Your task to perform on an android device: Do I have any events today? Image 0: 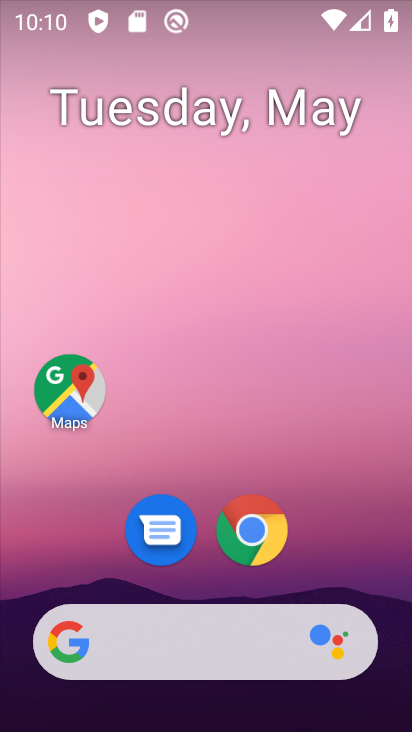
Step 0: drag from (339, 488) to (383, 102)
Your task to perform on an android device: Do I have any events today? Image 1: 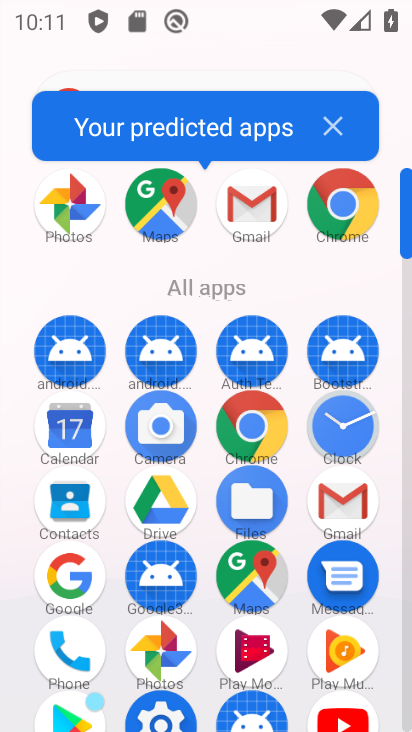
Step 1: click (97, 432)
Your task to perform on an android device: Do I have any events today? Image 2: 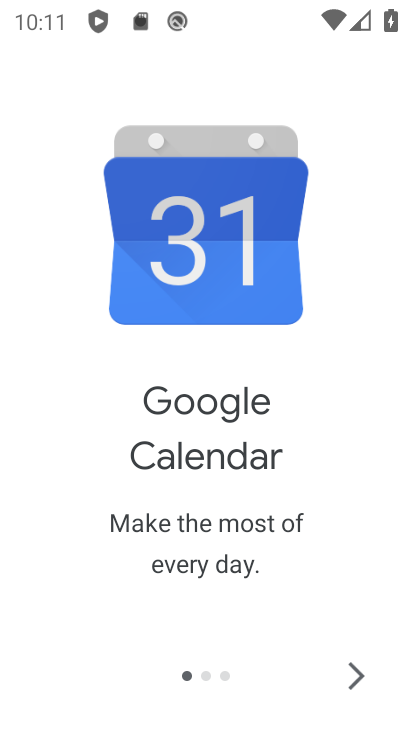
Step 2: click (370, 685)
Your task to perform on an android device: Do I have any events today? Image 3: 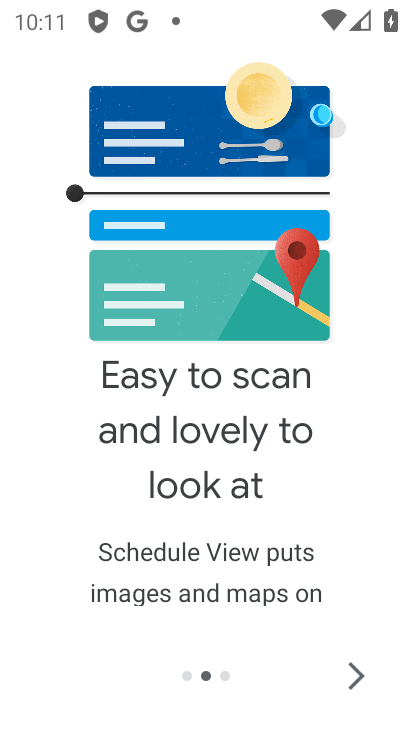
Step 3: click (370, 685)
Your task to perform on an android device: Do I have any events today? Image 4: 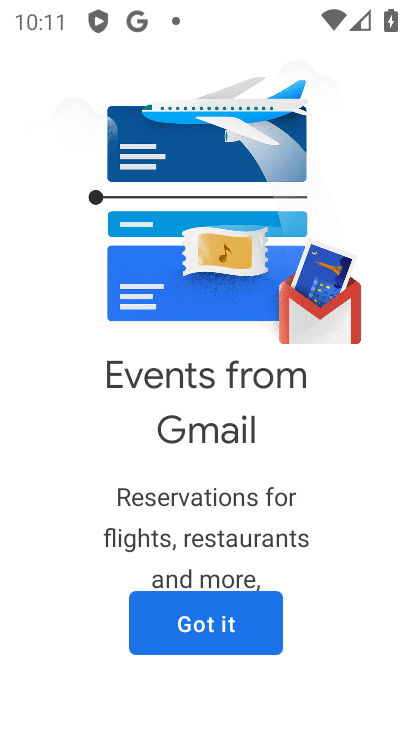
Step 4: click (270, 633)
Your task to perform on an android device: Do I have any events today? Image 5: 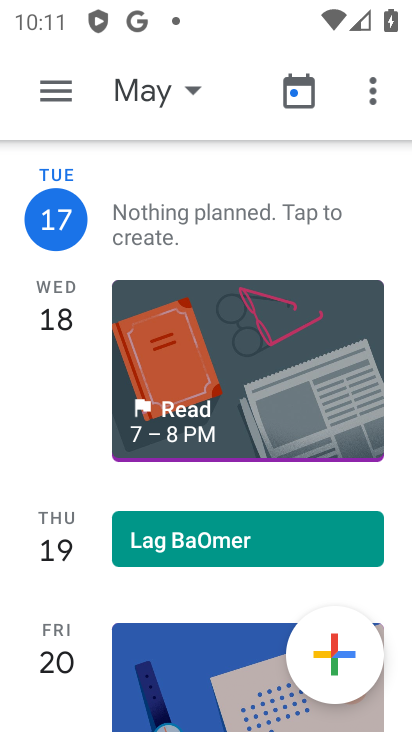
Step 5: click (65, 312)
Your task to perform on an android device: Do I have any events today? Image 6: 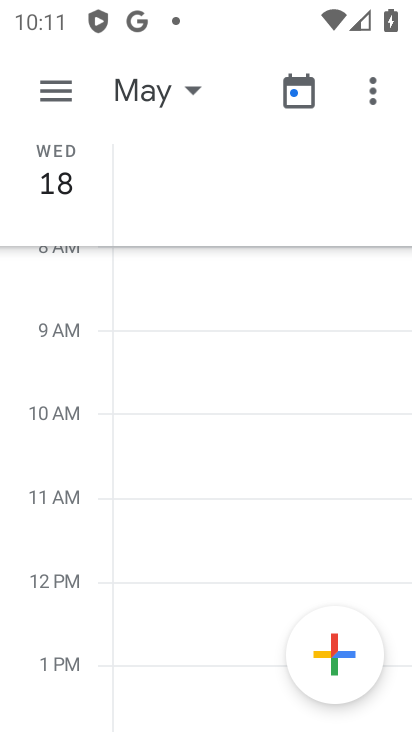
Step 6: task complete